Your task to perform on an android device: delete browsing data in the chrome app Image 0: 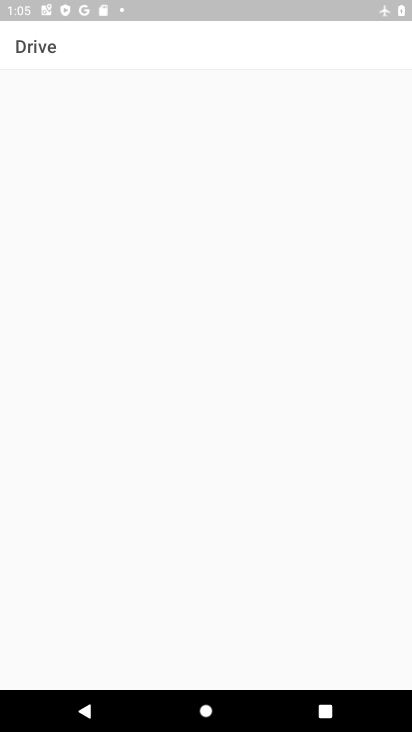
Step 0: press home button
Your task to perform on an android device: delete browsing data in the chrome app Image 1: 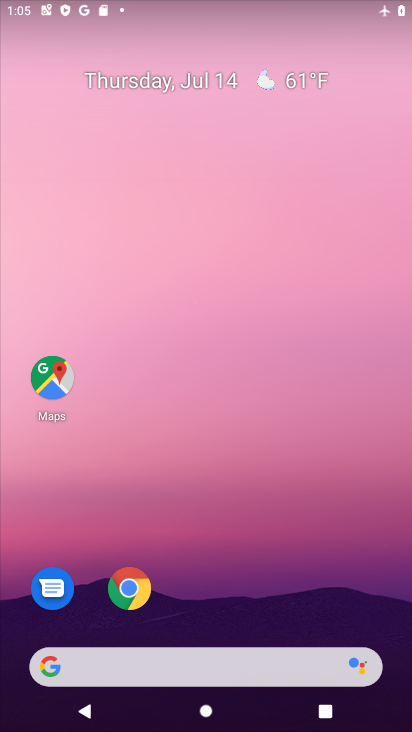
Step 1: click (128, 594)
Your task to perform on an android device: delete browsing data in the chrome app Image 2: 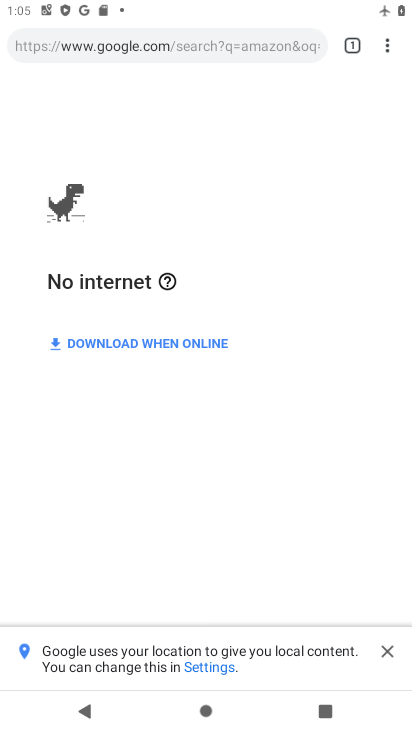
Step 2: click (393, 58)
Your task to perform on an android device: delete browsing data in the chrome app Image 3: 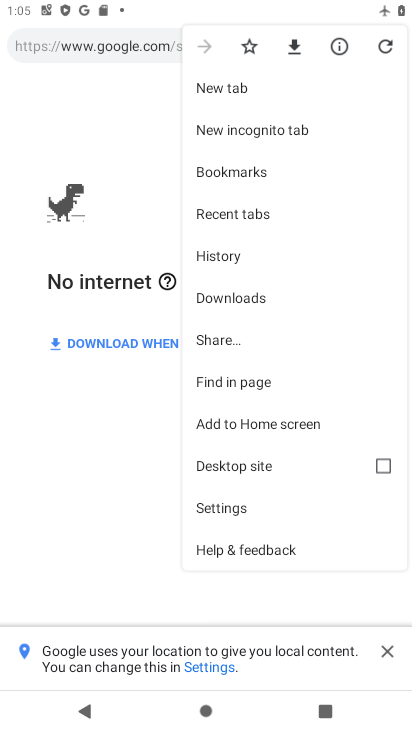
Step 3: click (230, 511)
Your task to perform on an android device: delete browsing data in the chrome app Image 4: 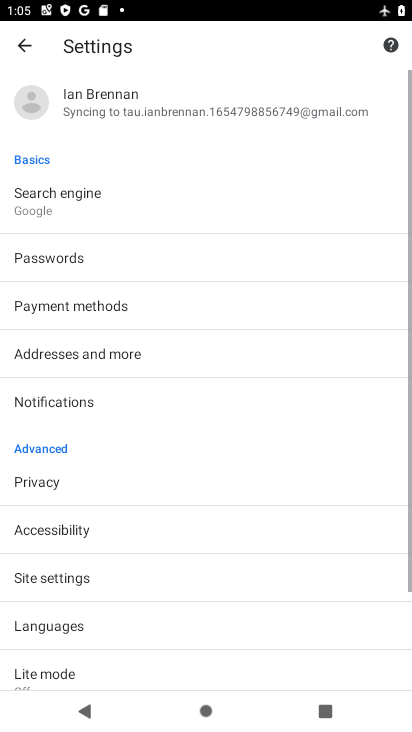
Step 4: click (28, 44)
Your task to perform on an android device: delete browsing data in the chrome app Image 5: 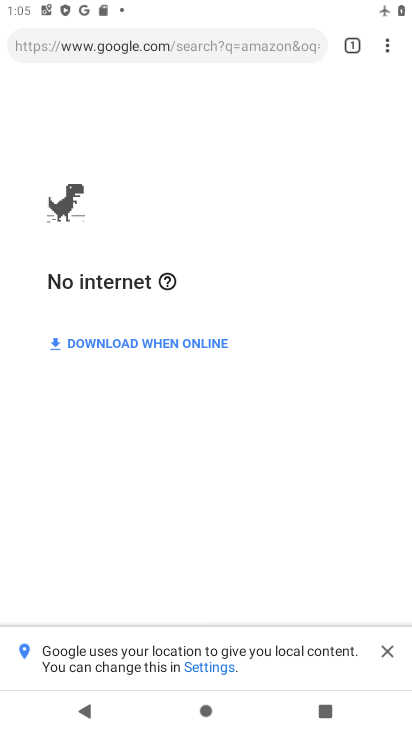
Step 5: click (387, 43)
Your task to perform on an android device: delete browsing data in the chrome app Image 6: 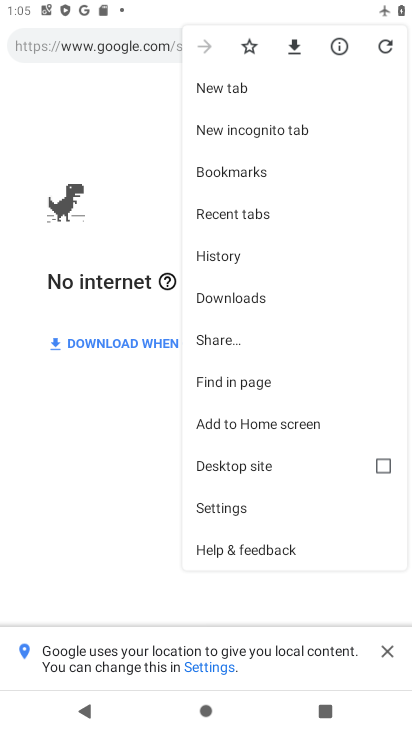
Step 6: click (233, 254)
Your task to perform on an android device: delete browsing data in the chrome app Image 7: 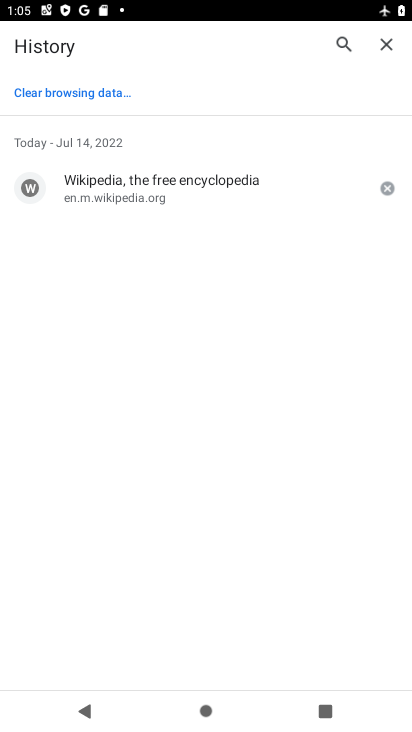
Step 7: click (65, 93)
Your task to perform on an android device: delete browsing data in the chrome app Image 8: 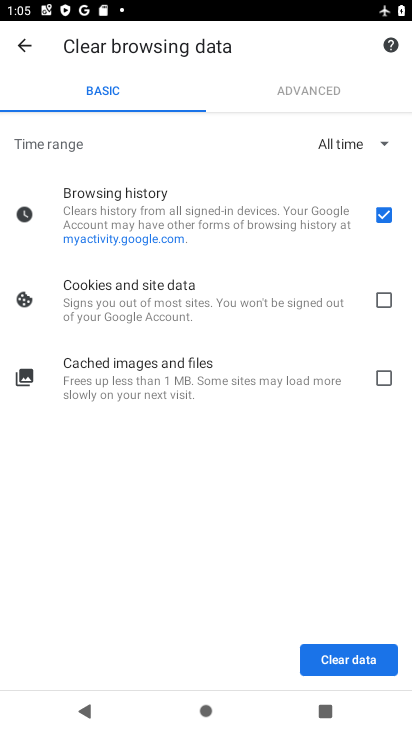
Step 8: click (385, 293)
Your task to perform on an android device: delete browsing data in the chrome app Image 9: 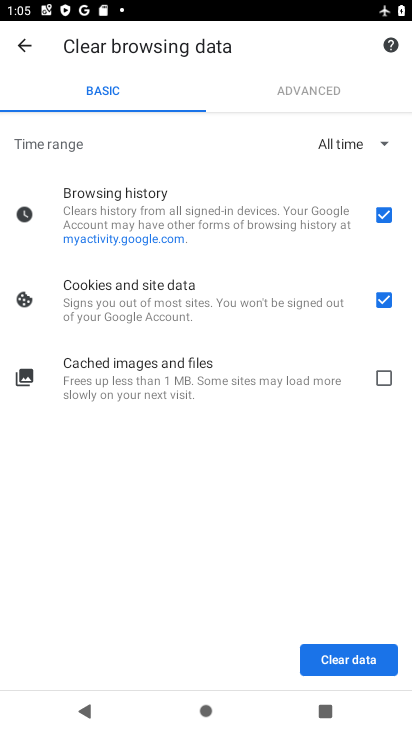
Step 9: click (377, 377)
Your task to perform on an android device: delete browsing data in the chrome app Image 10: 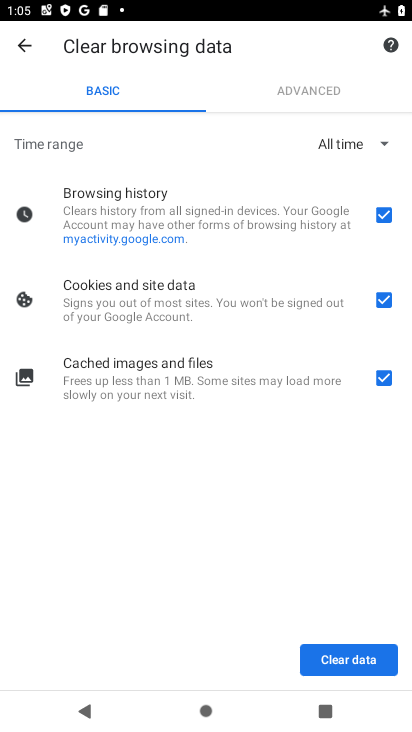
Step 10: click (341, 657)
Your task to perform on an android device: delete browsing data in the chrome app Image 11: 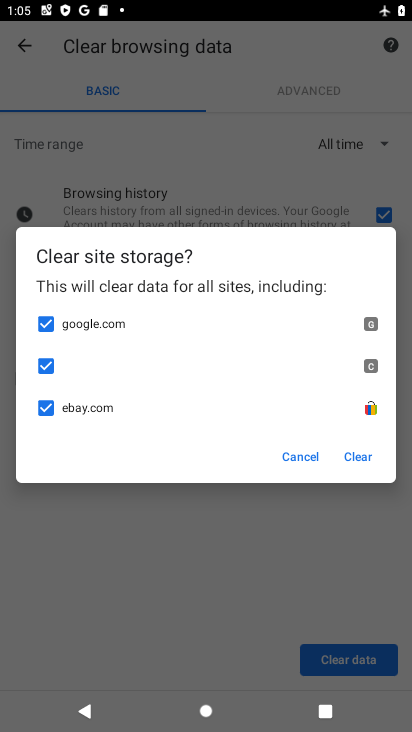
Step 11: click (359, 462)
Your task to perform on an android device: delete browsing data in the chrome app Image 12: 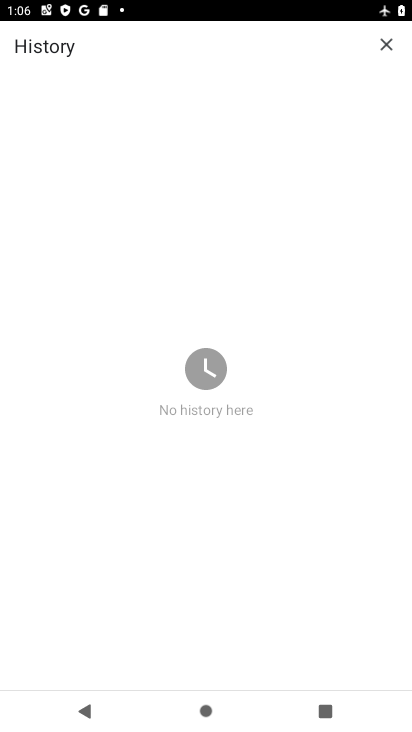
Step 12: task complete